Your task to perform on an android device: What's the weather going to be this weekend? Image 0: 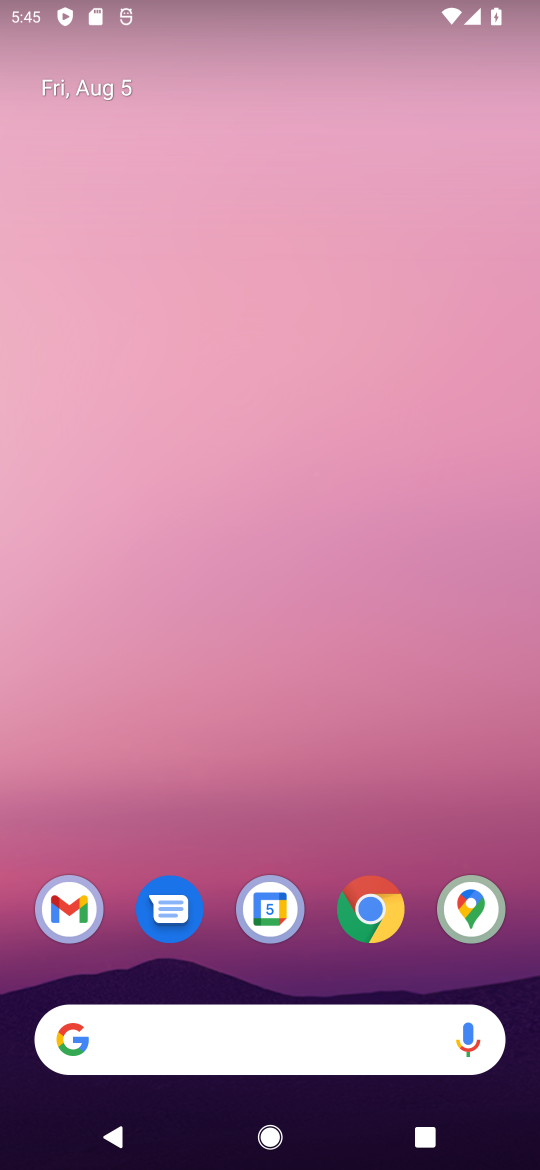
Step 0: press home button
Your task to perform on an android device: What's the weather going to be this weekend? Image 1: 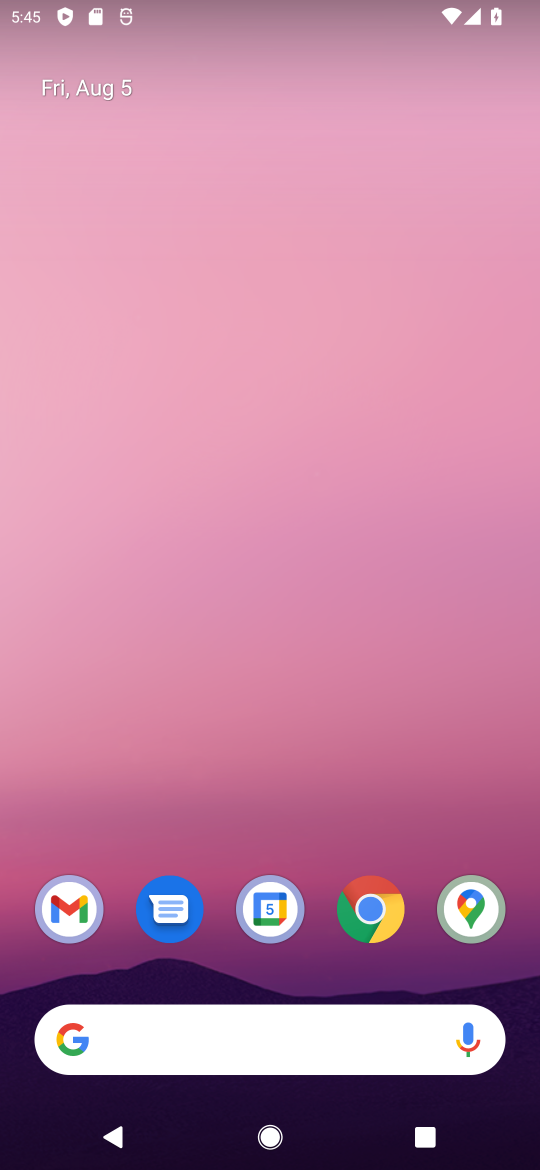
Step 1: click (59, 1028)
Your task to perform on an android device: What's the weather going to be this weekend? Image 2: 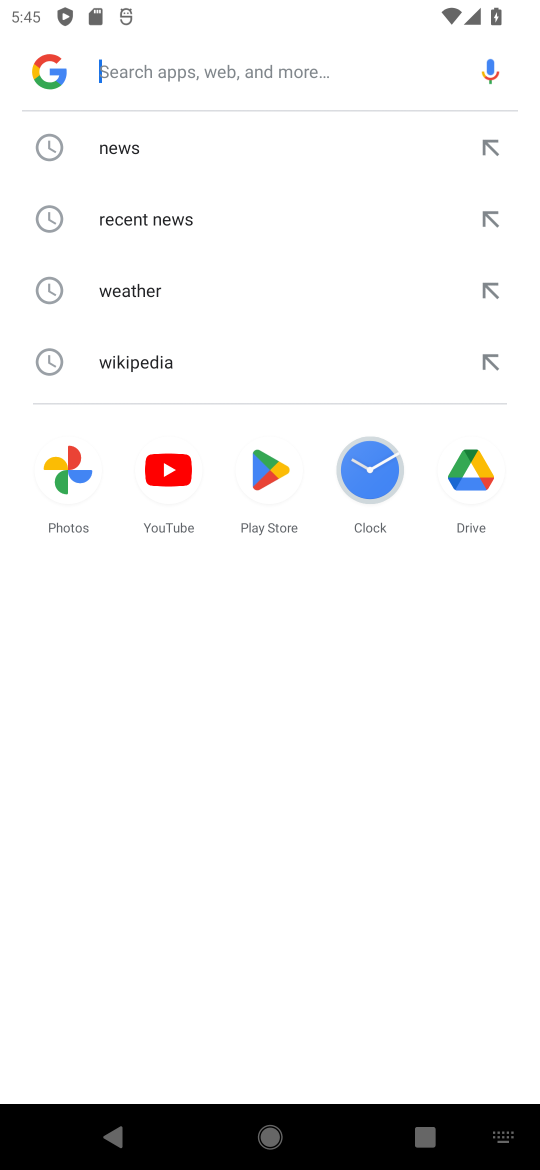
Step 2: type "What's the weather going to be this weekend?"
Your task to perform on an android device: What's the weather going to be this weekend? Image 3: 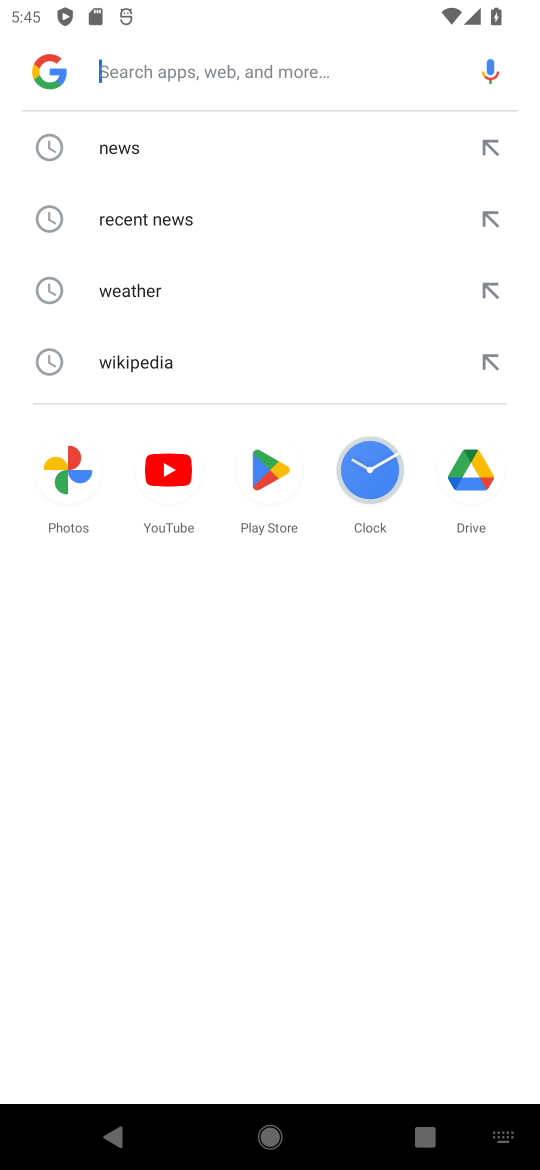
Step 3: click (178, 74)
Your task to perform on an android device: What's the weather going to be this weekend? Image 4: 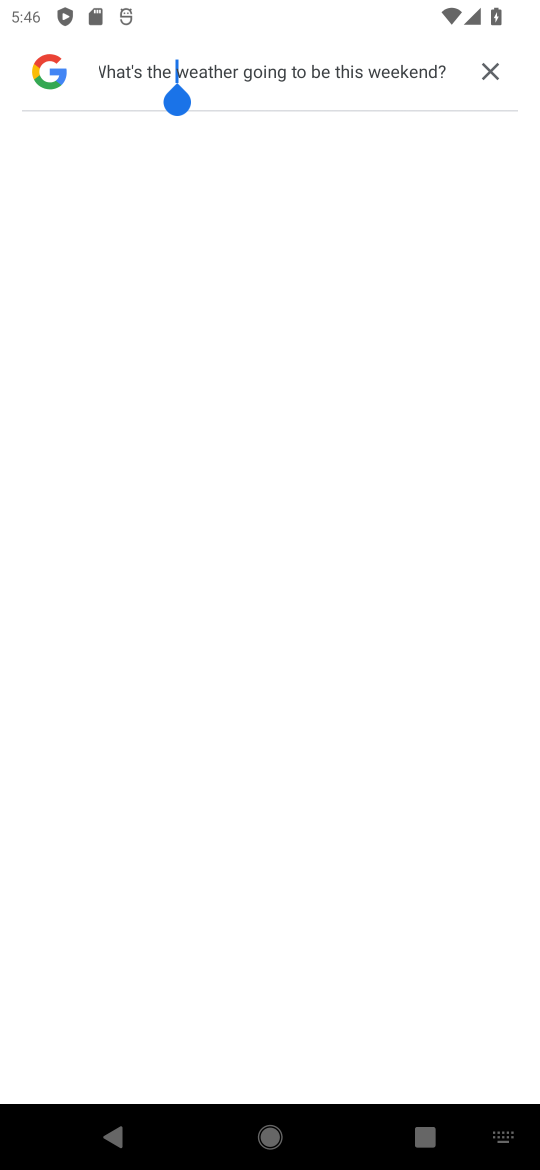
Step 4: press enter
Your task to perform on an android device: What's the weather going to be this weekend? Image 5: 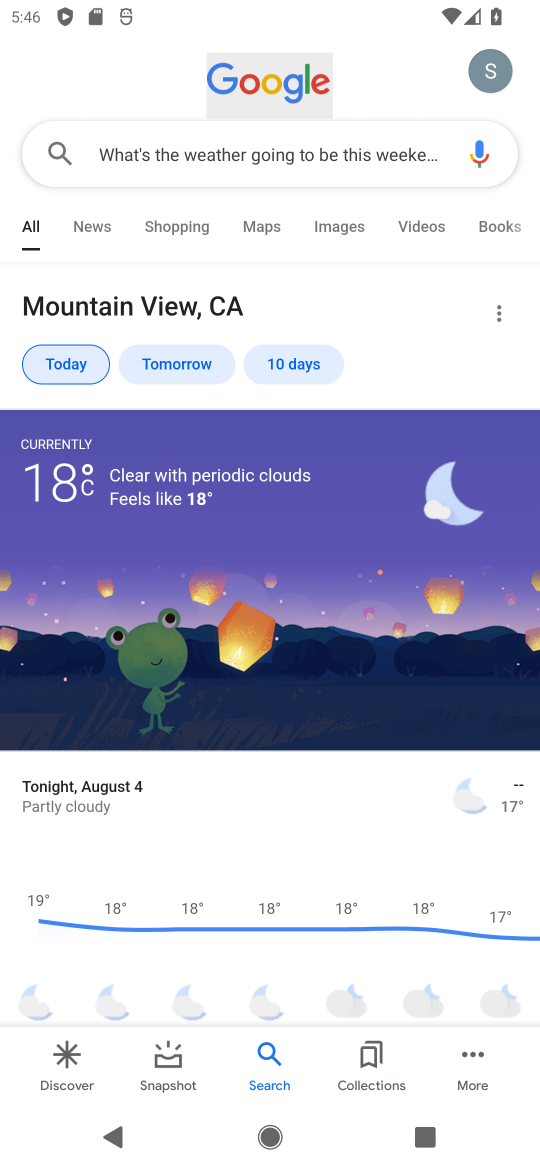
Step 5: task complete